Your task to perform on an android device: Open Wikipedia Image 0: 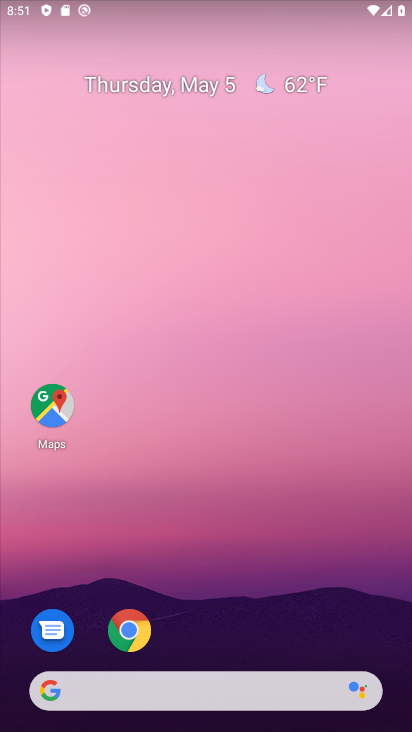
Step 0: click (163, 40)
Your task to perform on an android device: Open Wikipedia Image 1: 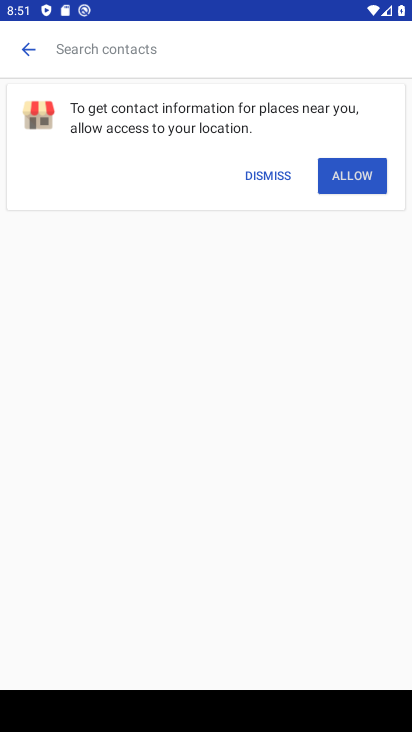
Step 1: press home button
Your task to perform on an android device: Open Wikipedia Image 2: 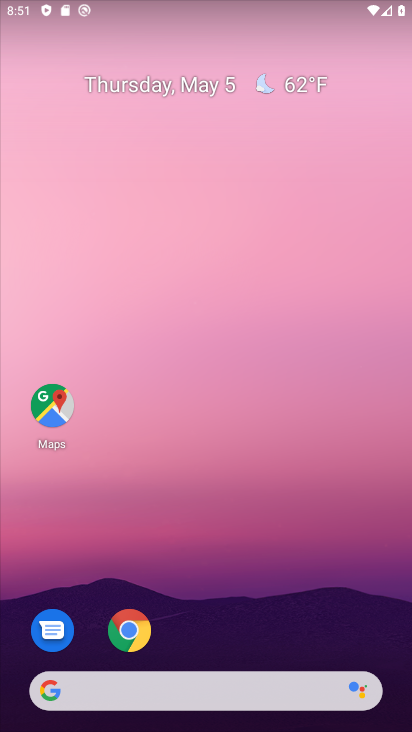
Step 2: drag from (219, 629) to (216, 90)
Your task to perform on an android device: Open Wikipedia Image 3: 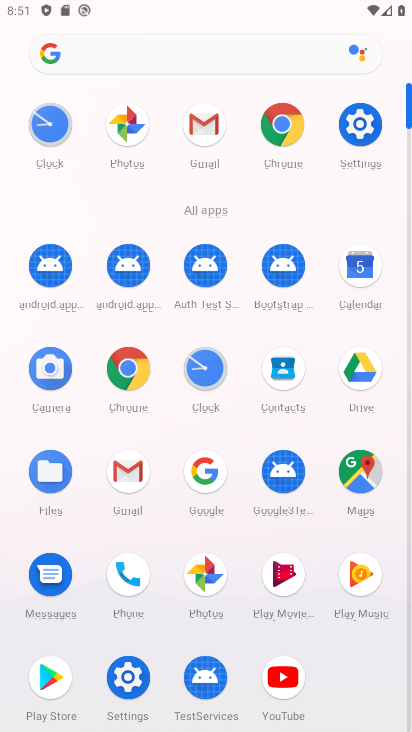
Step 3: click (279, 121)
Your task to perform on an android device: Open Wikipedia Image 4: 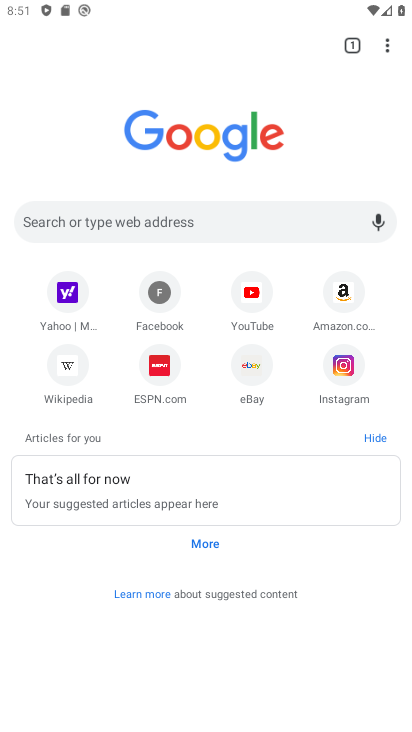
Step 4: click (61, 367)
Your task to perform on an android device: Open Wikipedia Image 5: 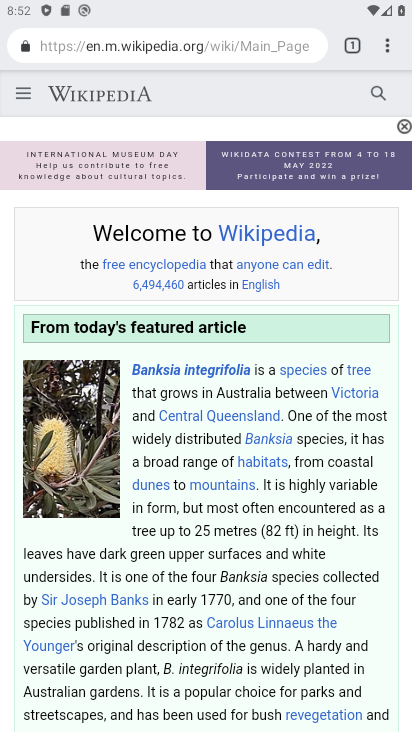
Step 5: task complete